Your task to perform on an android device: Go to eBay Image 0: 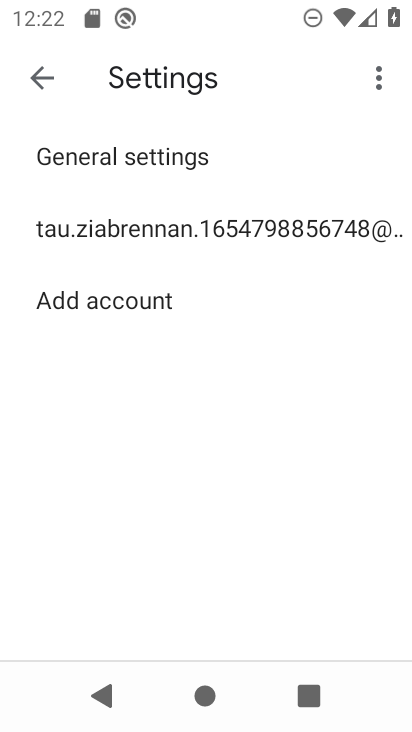
Step 0: press back button
Your task to perform on an android device: Go to eBay Image 1: 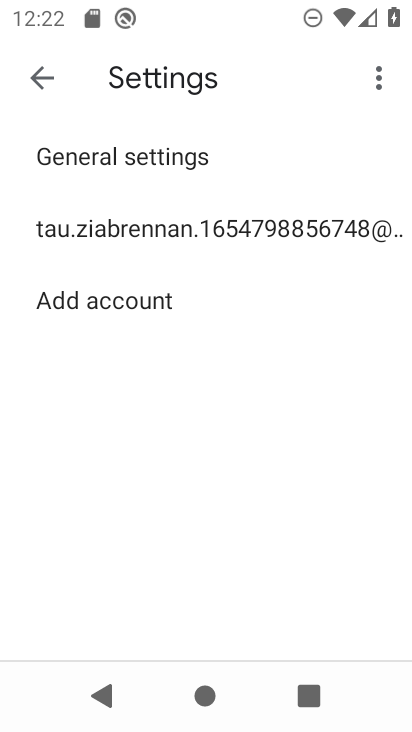
Step 1: press back button
Your task to perform on an android device: Go to eBay Image 2: 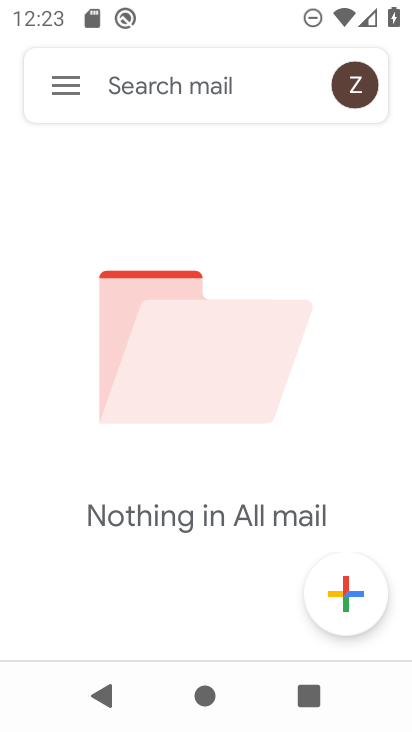
Step 2: press back button
Your task to perform on an android device: Go to eBay Image 3: 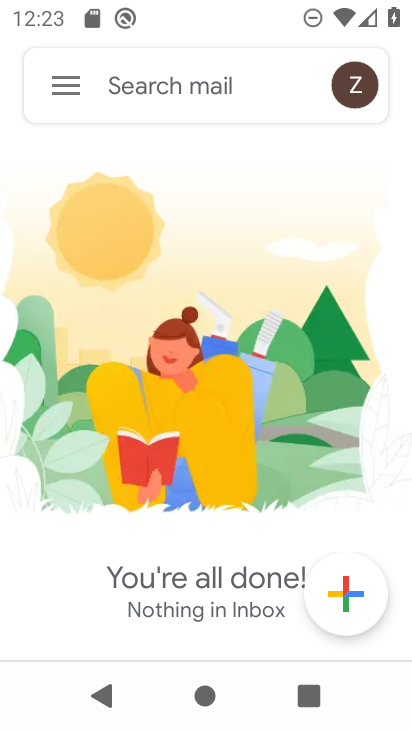
Step 3: press back button
Your task to perform on an android device: Go to eBay Image 4: 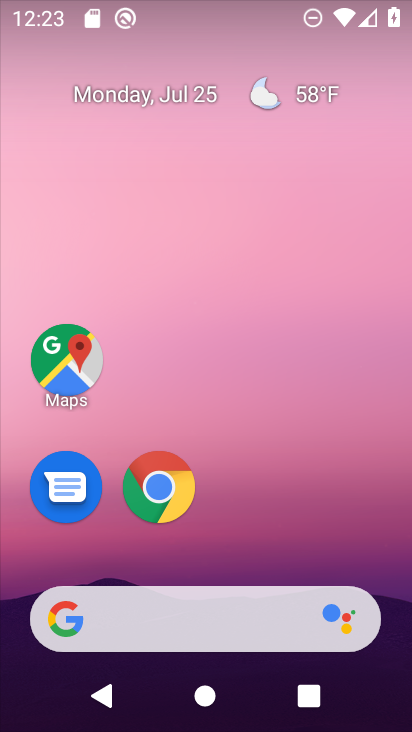
Step 4: click (163, 514)
Your task to perform on an android device: Go to eBay Image 5: 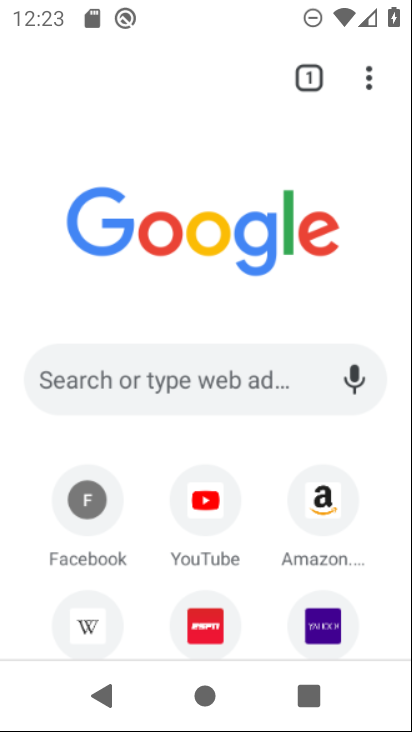
Step 5: click (178, 379)
Your task to perform on an android device: Go to eBay Image 6: 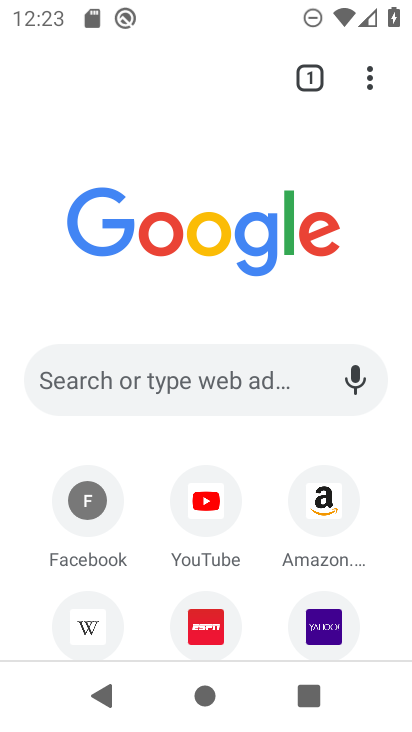
Step 6: type "ebay"
Your task to perform on an android device: Go to eBay Image 7: 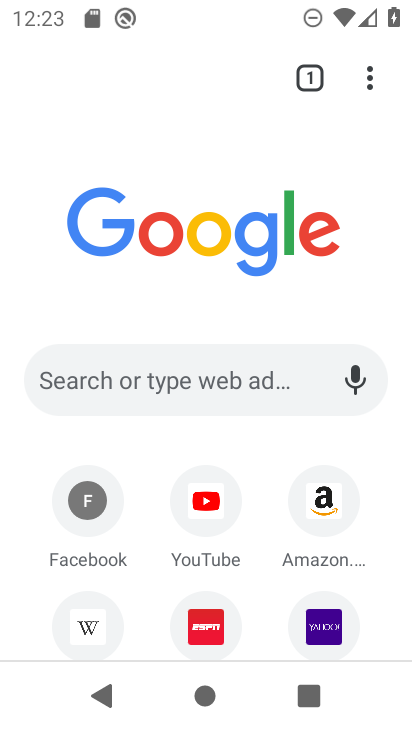
Step 7: click (192, 379)
Your task to perform on an android device: Go to eBay Image 8: 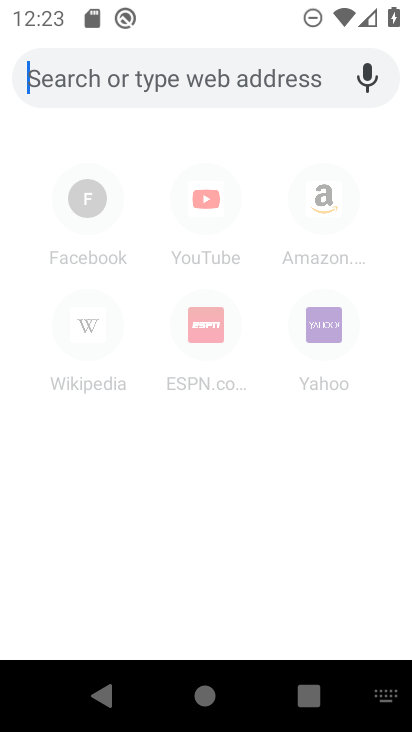
Step 8: type "ebay"
Your task to perform on an android device: Go to eBay Image 9: 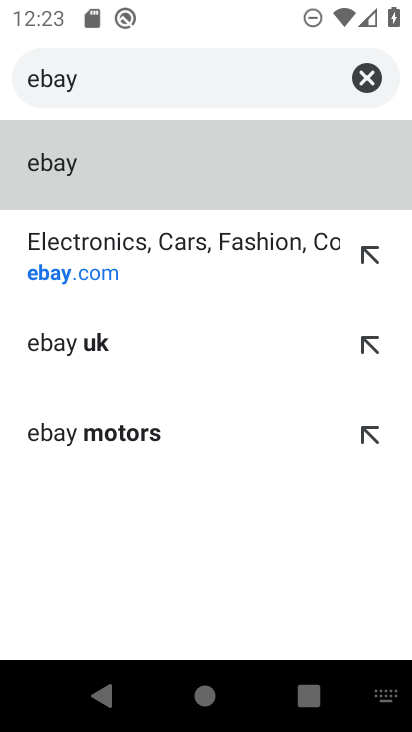
Step 9: click (96, 248)
Your task to perform on an android device: Go to eBay Image 10: 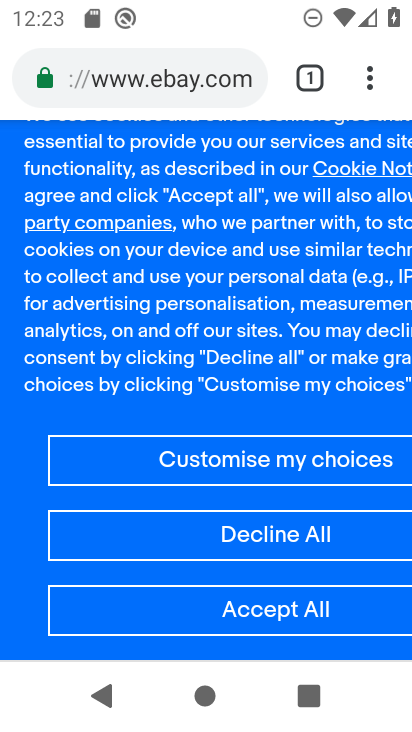
Step 10: task complete